Your task to perform on an android device: check data usage Image 0: 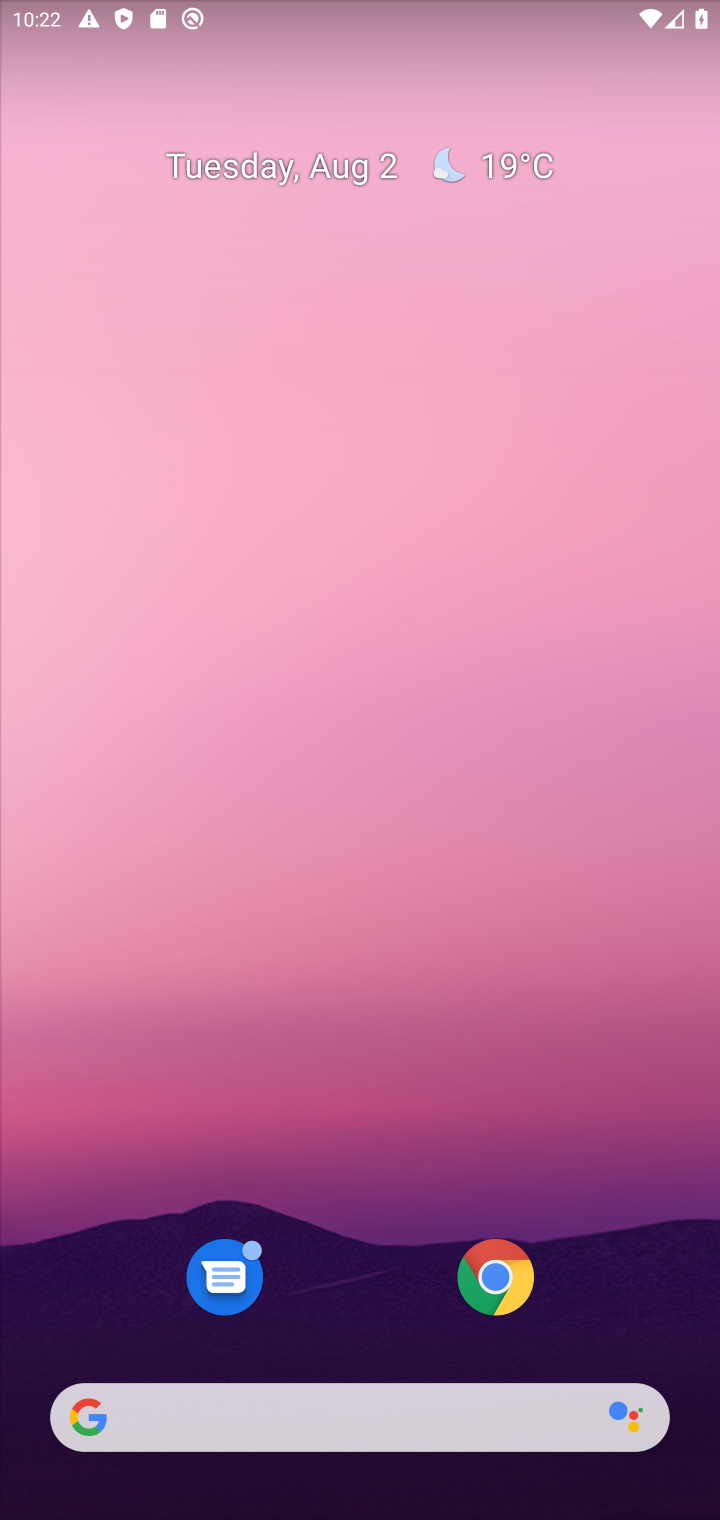
Step 0: drag from (400, 1338) to (402, 325)
Your task to perform on an android device: check data usage Image 1: 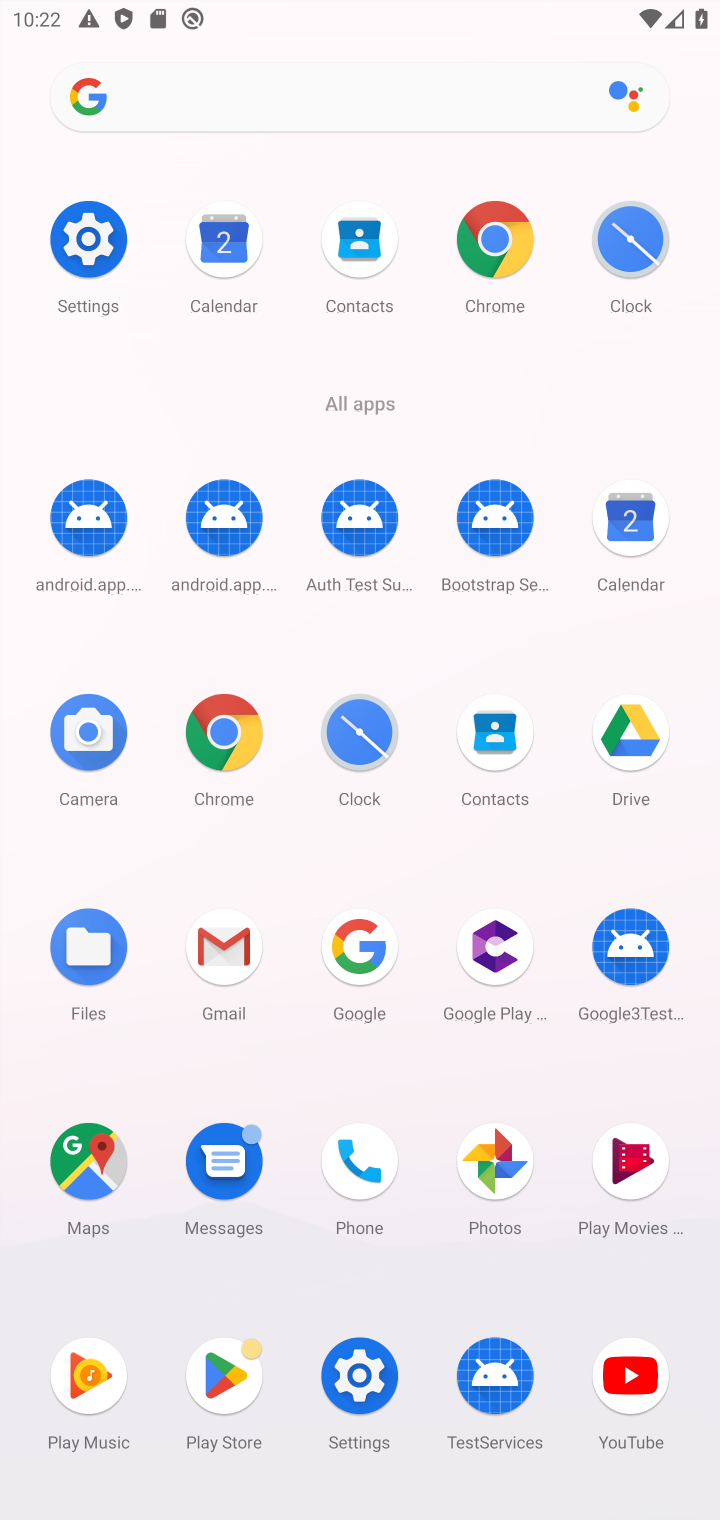
Step 1: click (86, 261)
Your task to perform on an android device: check data usage Image 2: 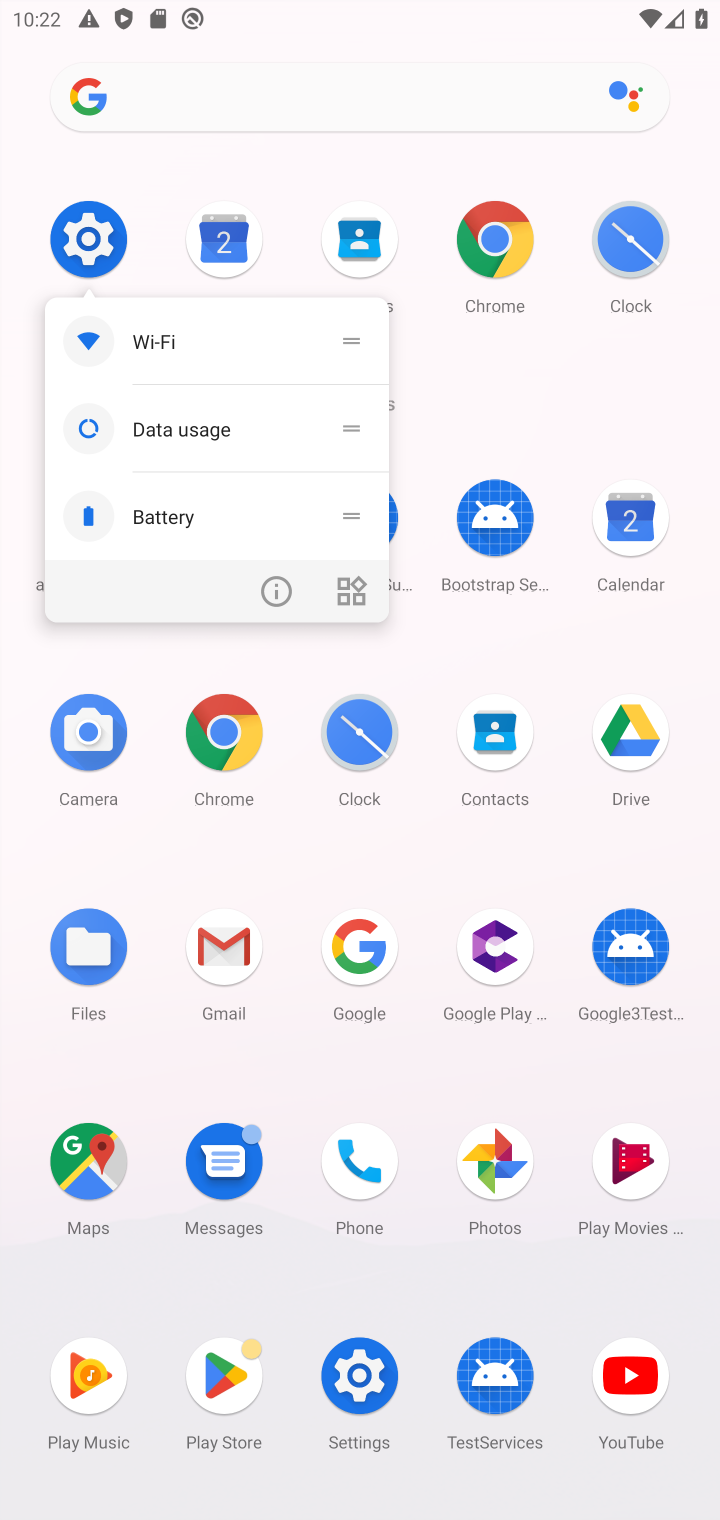
Step 2: click (89, 264)
Your task to perform on an android device: check data usage Image 3: 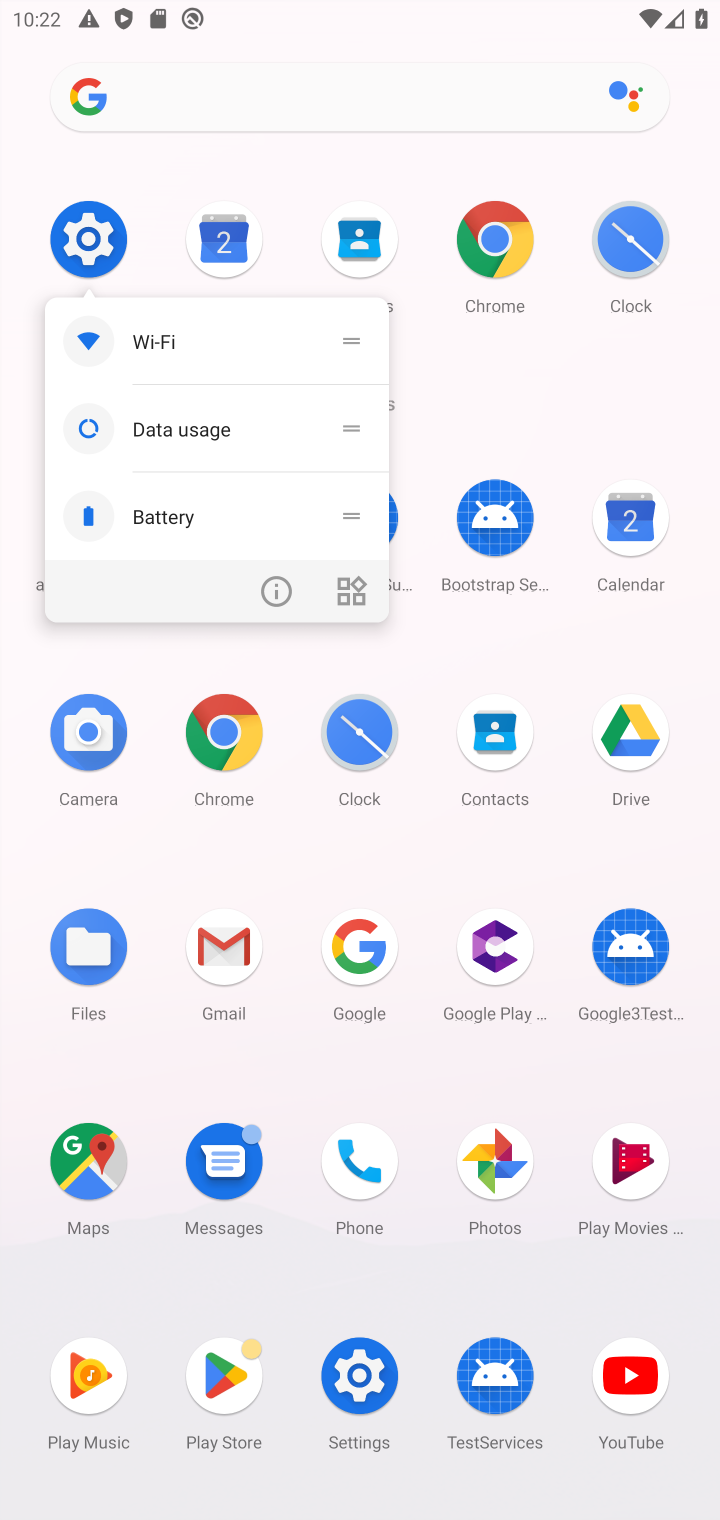
Step 3: click (81, 236)
Your task to perform on an android device: check data usage Image 4: 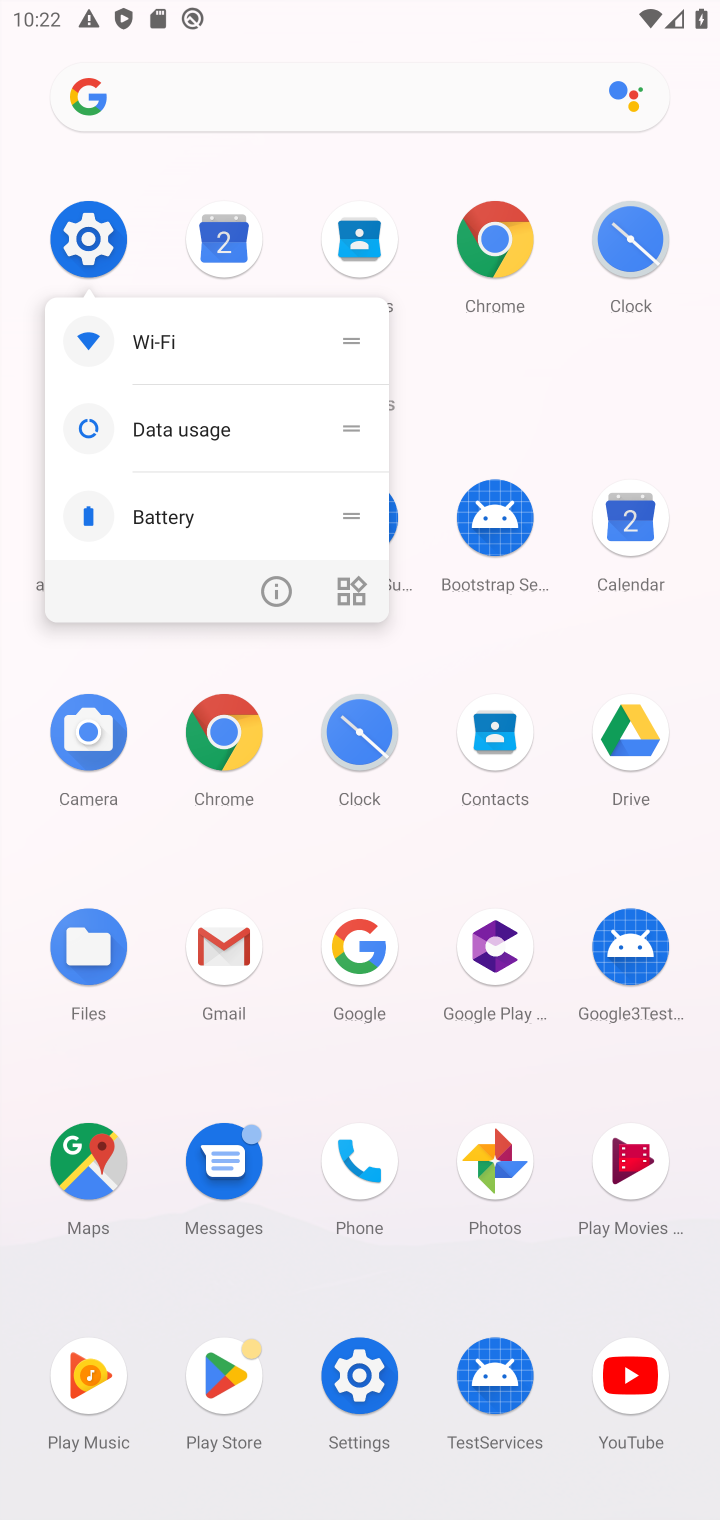
Step 4: click (89, 227)
Your task to perform on an android device: check data usage Image 5: 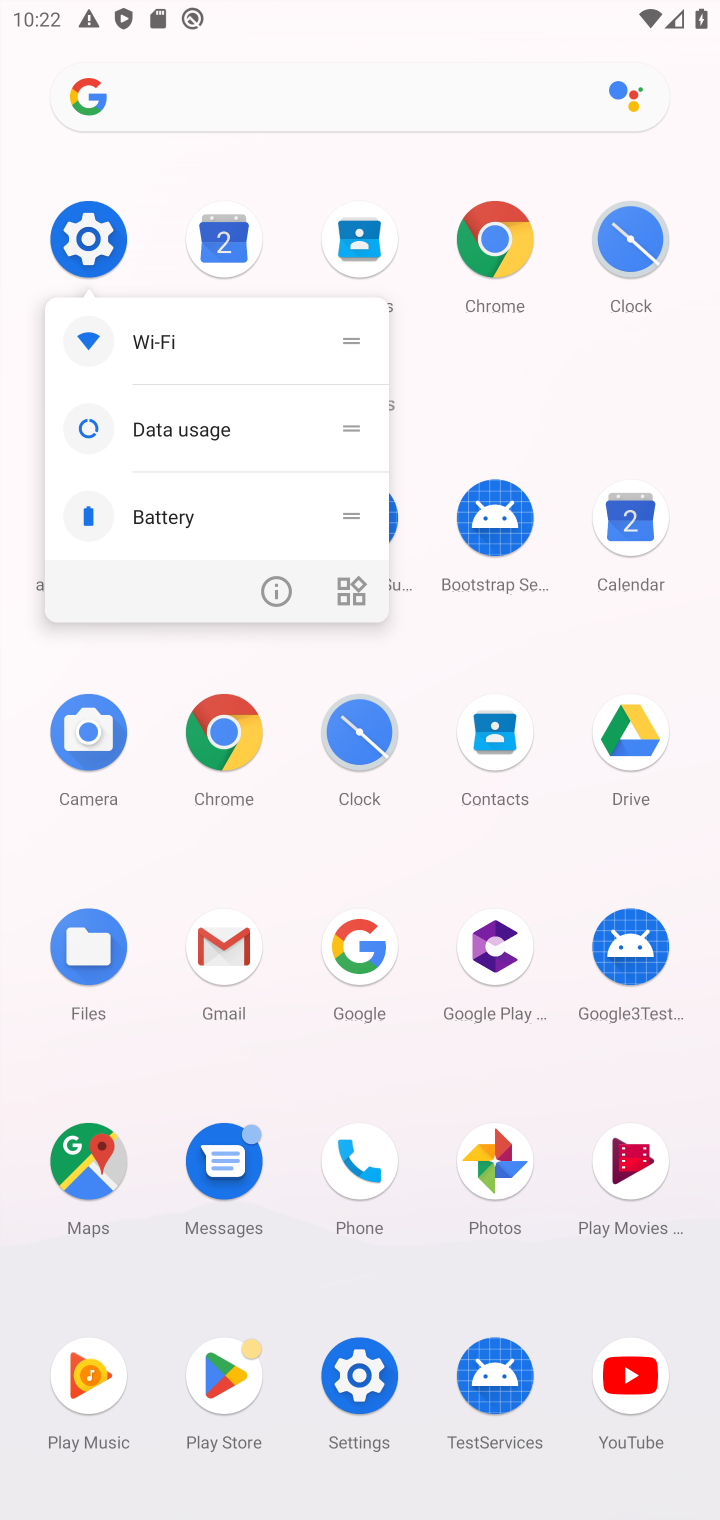
Step 5: click (82, 235)
Your task to perform on an android device: check data usage Image 6: 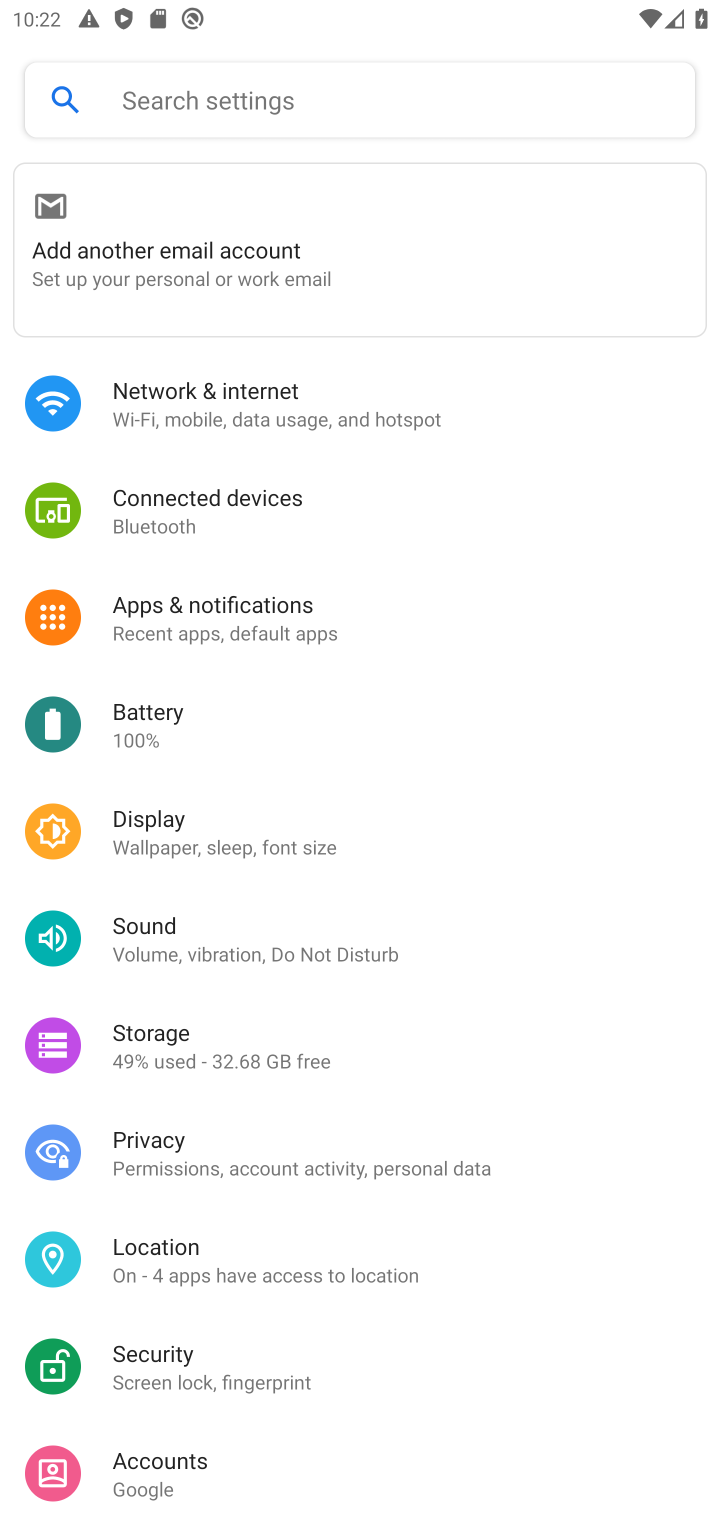
Step 6: click (183, 394)
Your task to perform on an android device: check data usage Image 7: 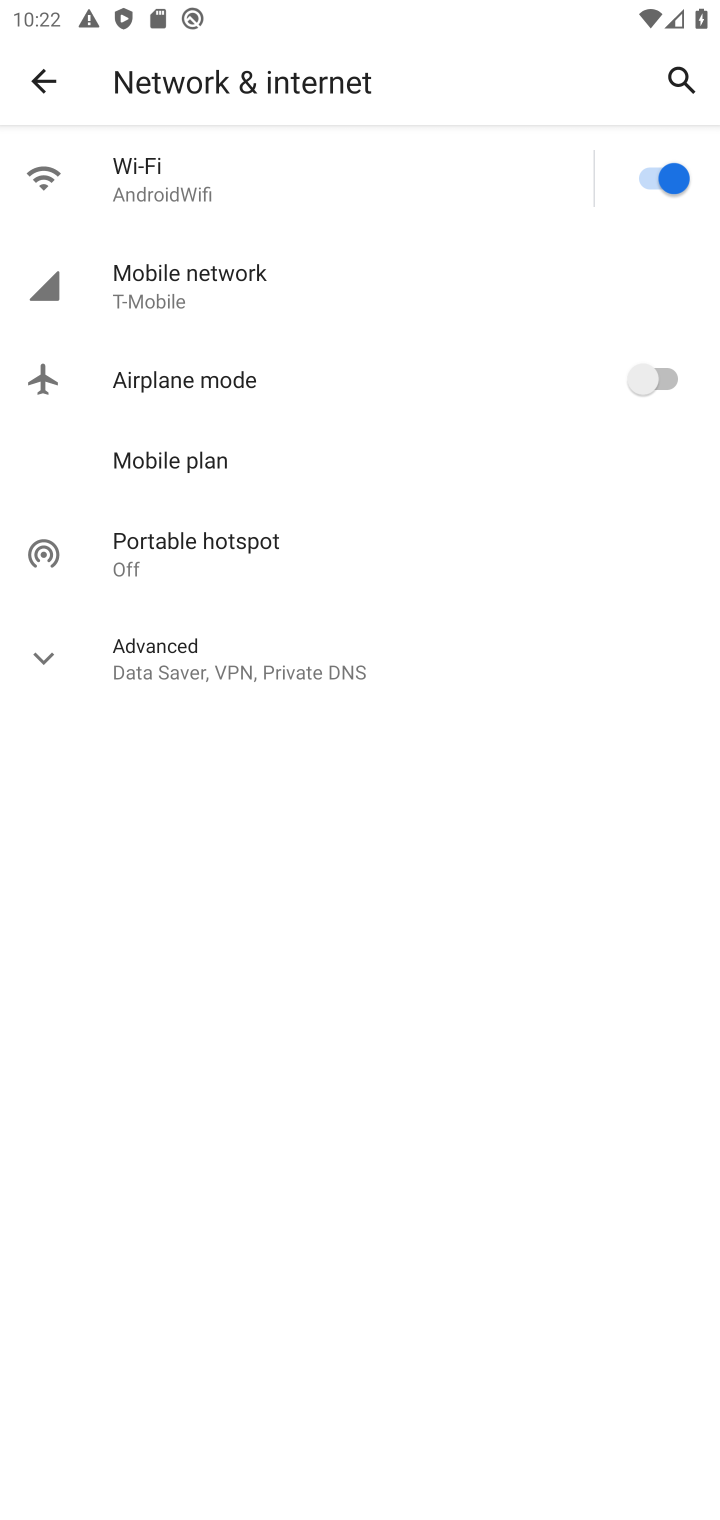
Step 7: click (236, 280)
Your task to perform on an android device: check data usage Image 8: 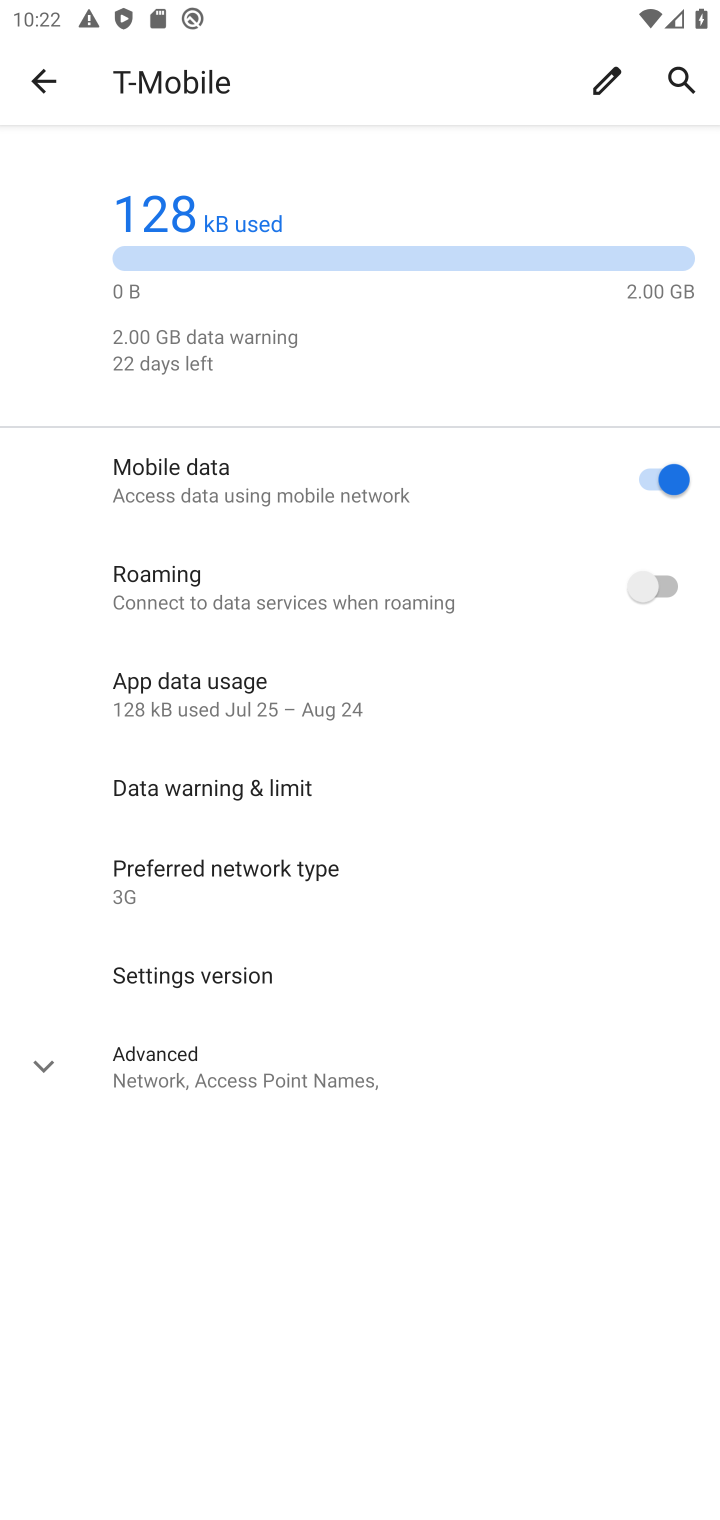
Step 8: click (210, 662)
Your task to perform on an android device: check data usage Image 9: 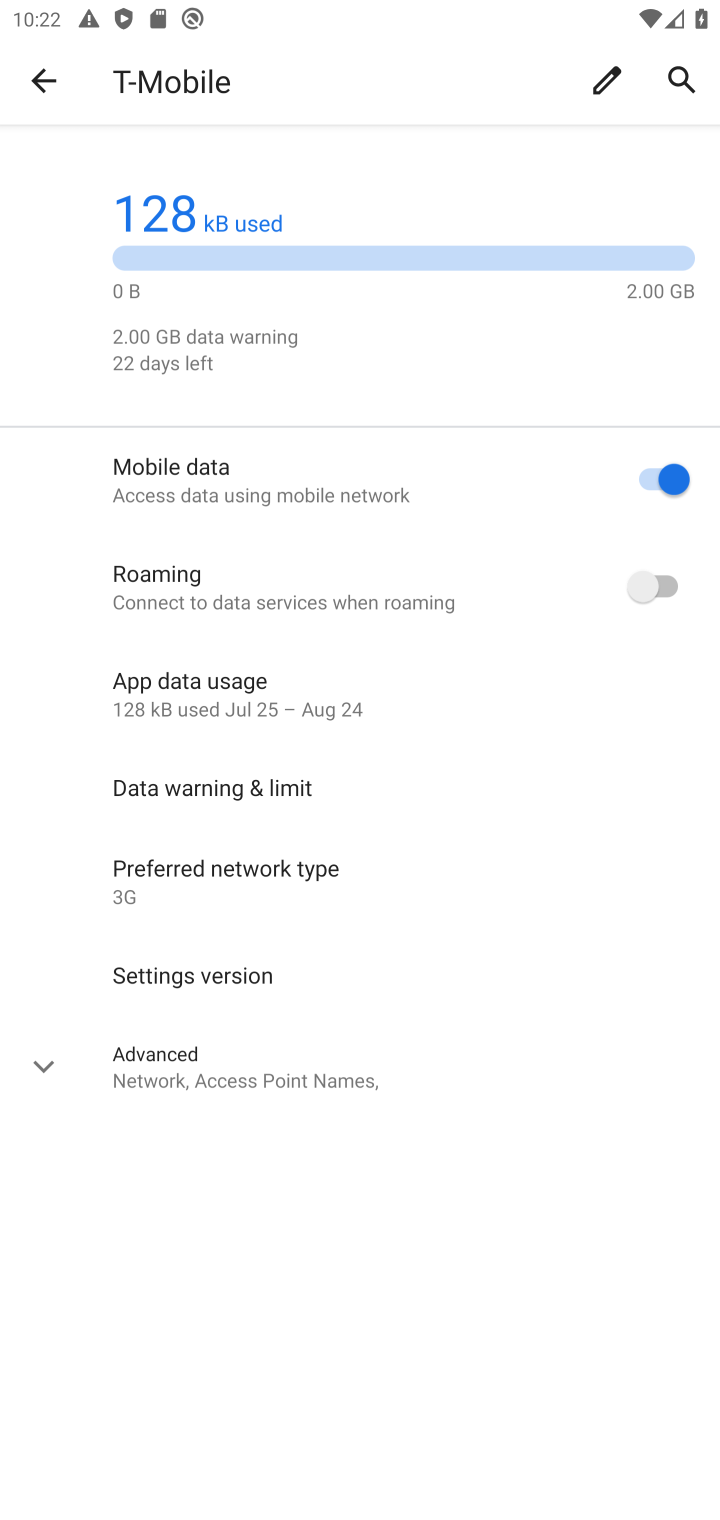
Step 9: click (210, 662)
Your task to perform on an android device: check data usage Image 10: 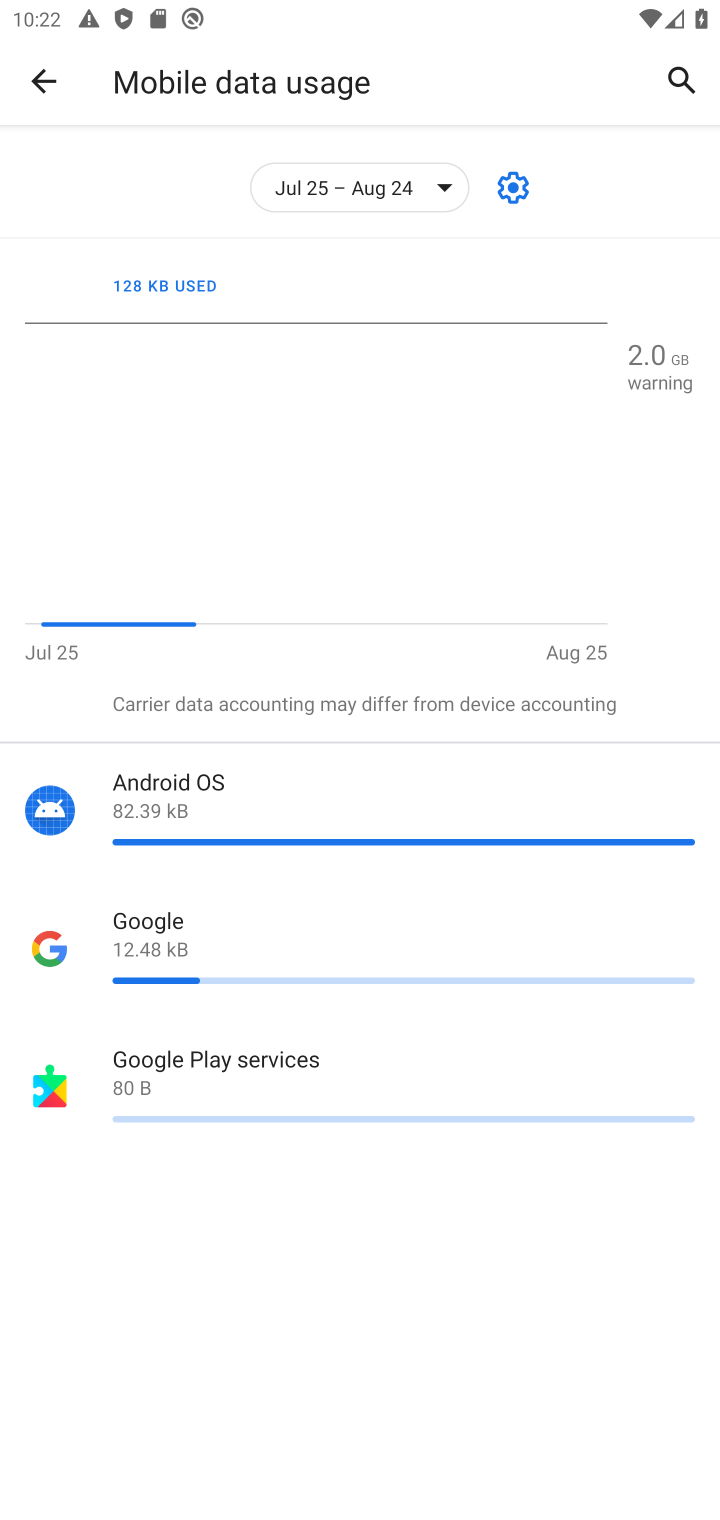
Step 10: task complete